Your task to perform on an android device: turn notification dots on Image 0: 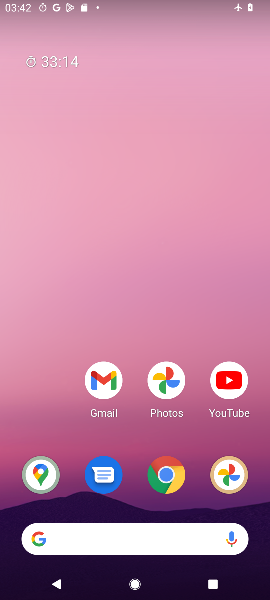
Step 0: press home button
Your task to perform on an android device: turn notification dots on Image 1: 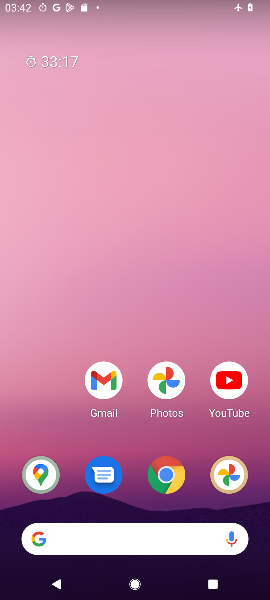
Step 1: drag from (60, 430) to (49, 222)
Your task to perform on an android device: turn notification dots on Image 2: 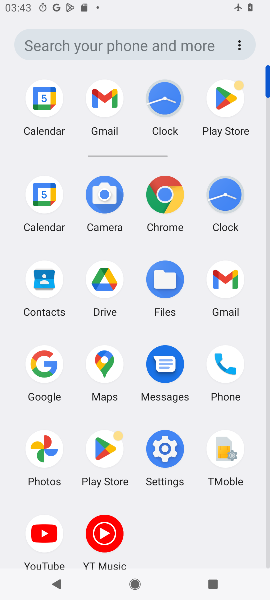
Step 2: click (167, 446)
Your task to perform on an android device: turn notification dots on Image 3: 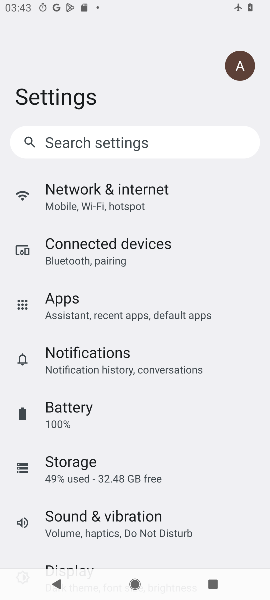
Step 3: drag from (210, 464) to (222, 390)
Your task to perform on an android device: turn notification dots on Image 4: 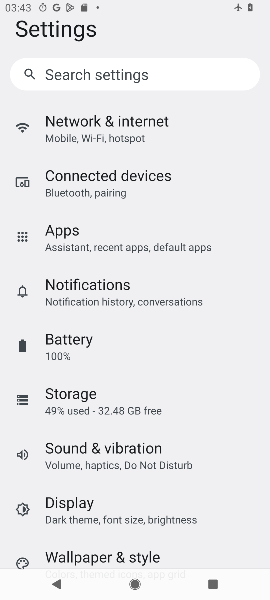
Step 4: drag from (228, 480) to (219, 360)
Your task to perform on an android device: turn notification dots on Image 5: 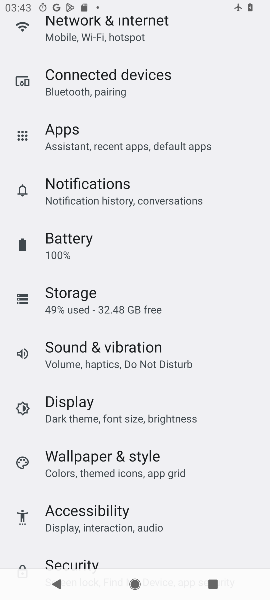
Step 5: drag from (206, 470) to (207, 377)
Your task to perform on an android device: turn notification dots on Image 6: 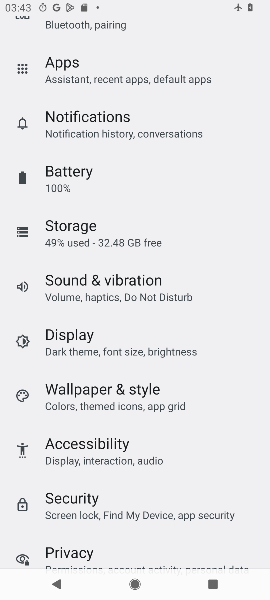
Step 6: drag from (224, 466) to (223, 350)
Your task to perform on an android device: turn notification dots on Image 7: 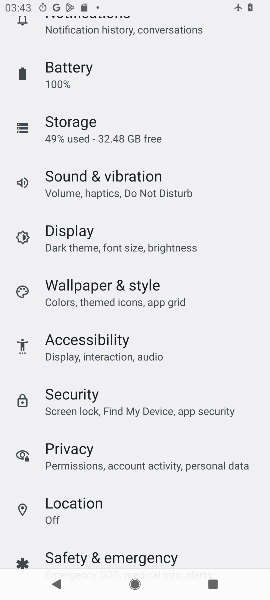
Step 7: drag from (213, 476) to (215, 367)
Your task to perform on an android device: turn notification dots on Image 8: 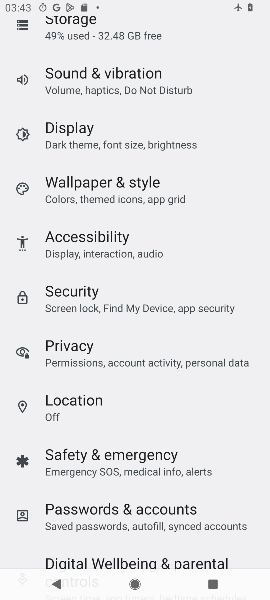
Step 8: drag from (216, 198) to (223, 286)
Your task to perform on an android device: turn notification dots on Image 9: 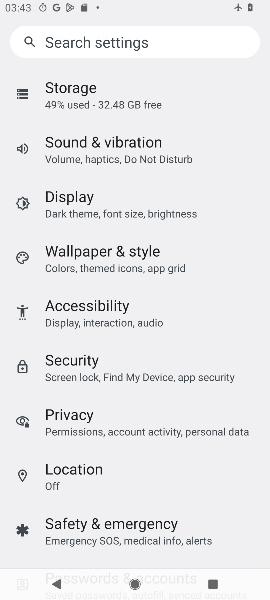
Step 9: drag from (227, 169) to (231, 274)
Your task to perform on an android device: turn notification dots on Image 10: 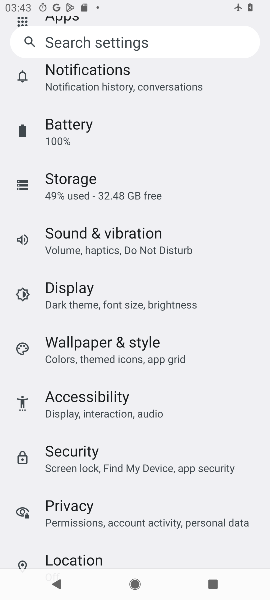
Step 10: drag from (227, 157) to (225, 267)
Your task to perform on an android device: turn notification dots on Image 11: 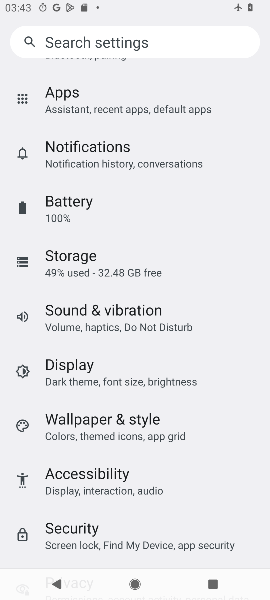
Step 11: drag from (215, 147) to (223, 270)
Your task to perform on an android device: turn notification dots on Image 12: 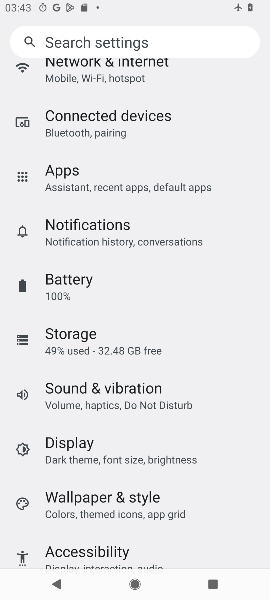
Step 12: click (200, 230)
Your task to perform on an android device: turn notification dots on Image 13: 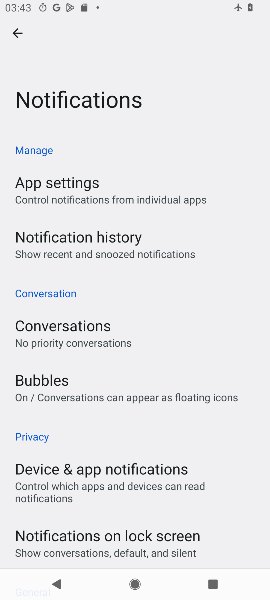
Step 13: task complete